Your task to perform on an android device: Open Android settings Image 0: 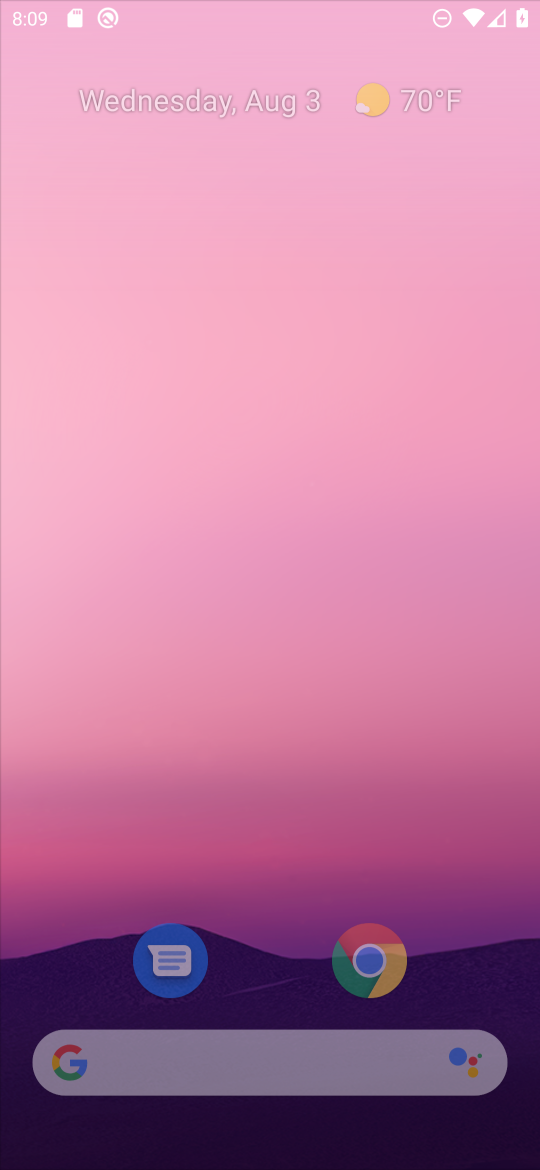
Step 0: press home button
Your task to perform on an android device: Open Android settings Image 1: 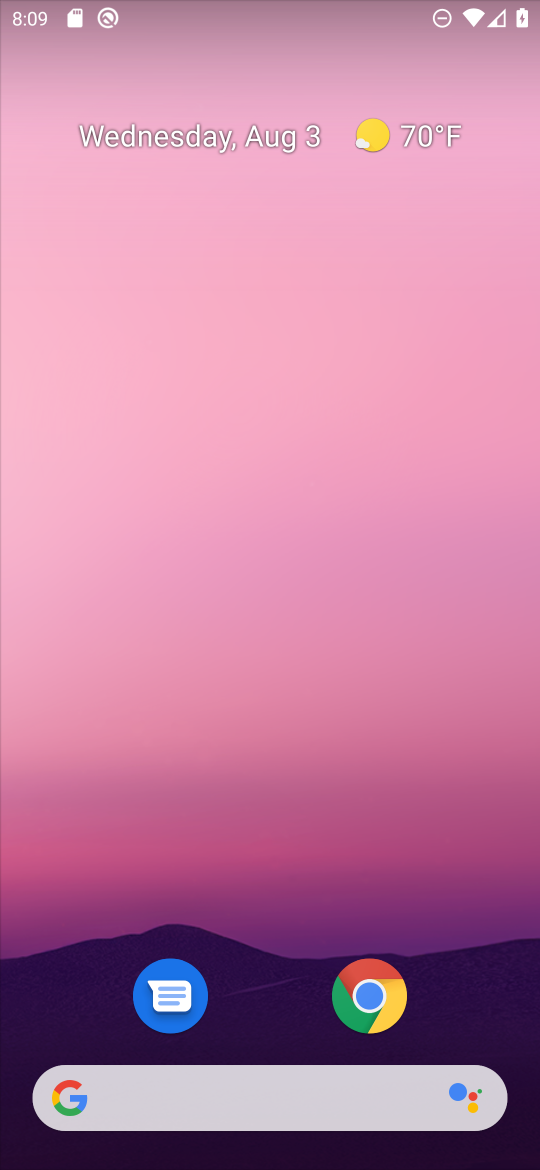
Step 1: click (393, 135)
Your task to perform on an android device: Open Android settings Image 2: 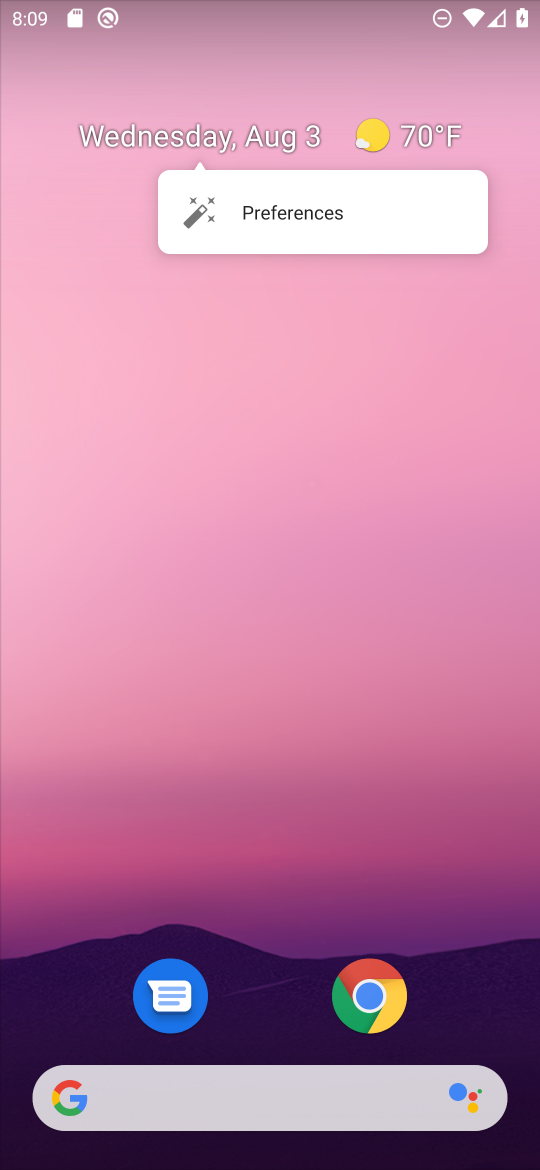
Step 2: click (393, 132)
Your task to perform on an android device: Open Android settings Image 3: 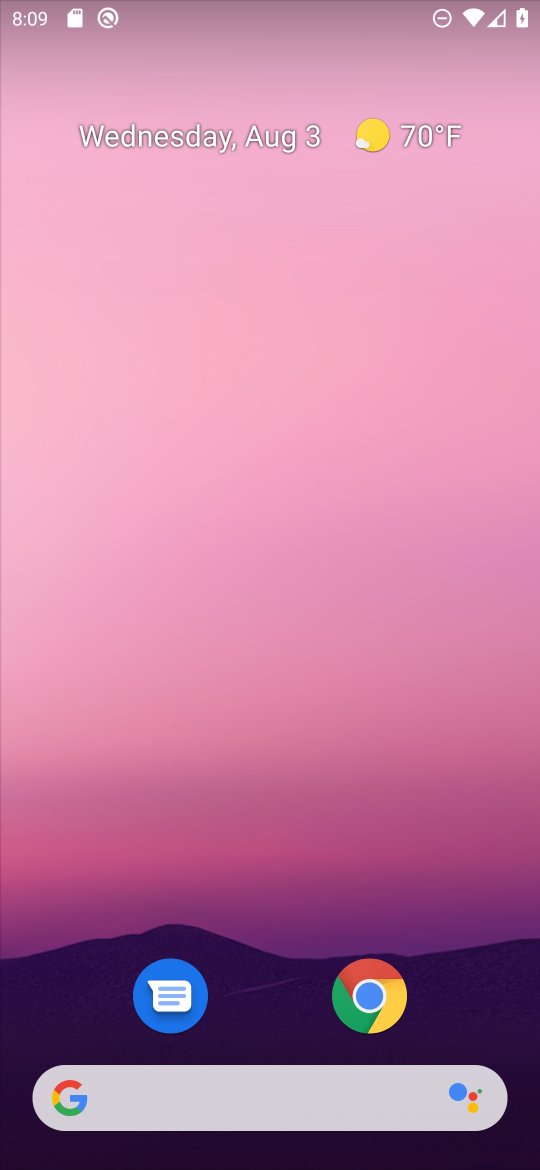
Step 3: click (393, 132)
Your task to perform on an android device: Open Android settings Image 4: 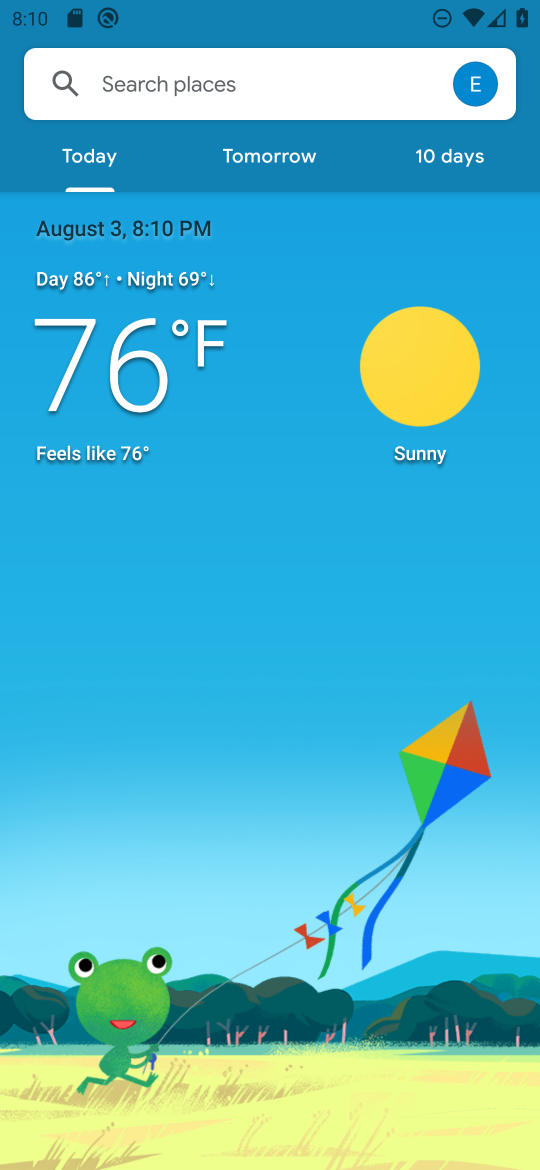
Step 4: press home button
Your task to perform on an android device: Open Android settings Image 5: 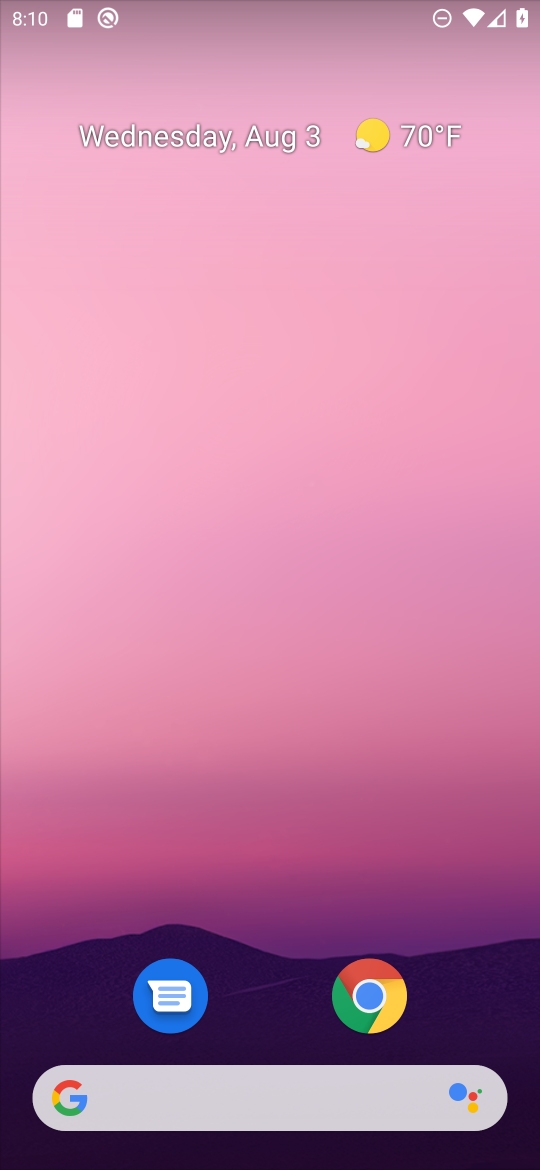
Step 5: drag from (297, 962) to (301, 0)
Your task to perform on an android device: Open Android settings Image 6: 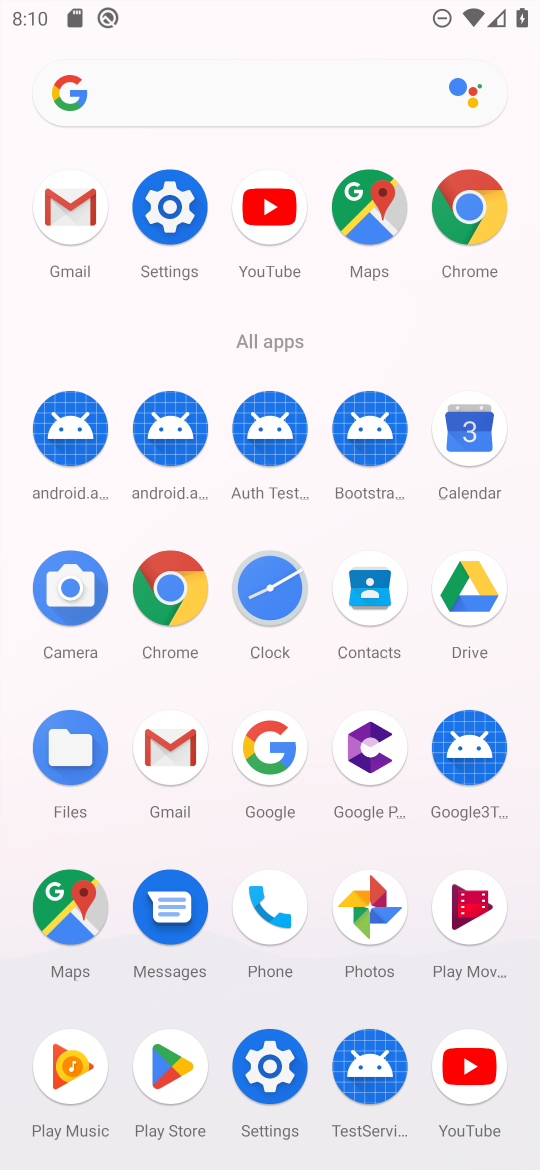
Step 6: click (177, 208)
Your task to perform on an android device: Open Android settings Image 7: 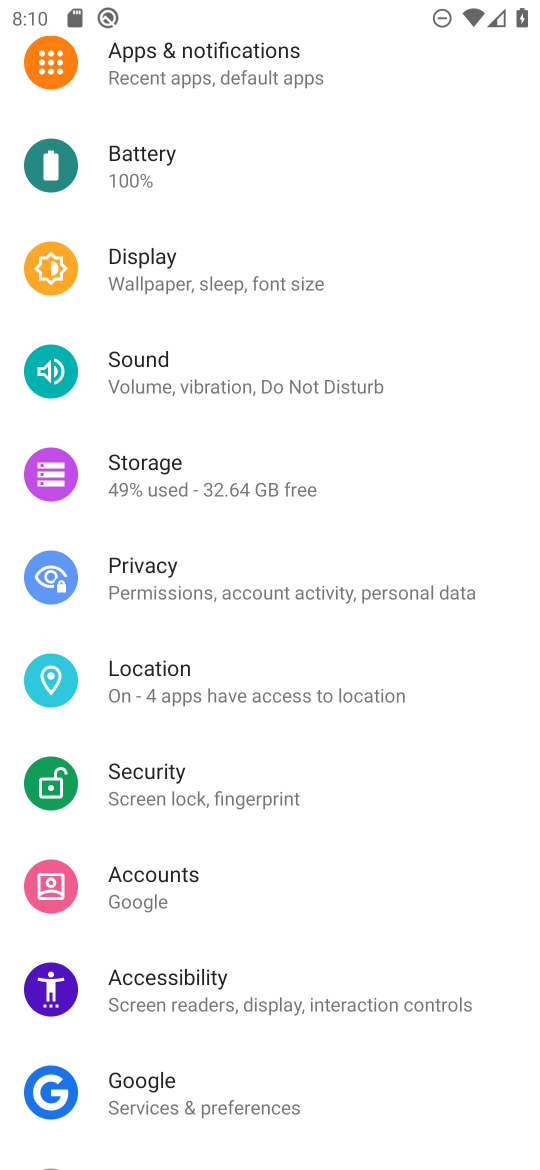
Step 7: drag from (358, 848) to (347, 656)
Your task to perform on an android device: Open Android settings Image 8: 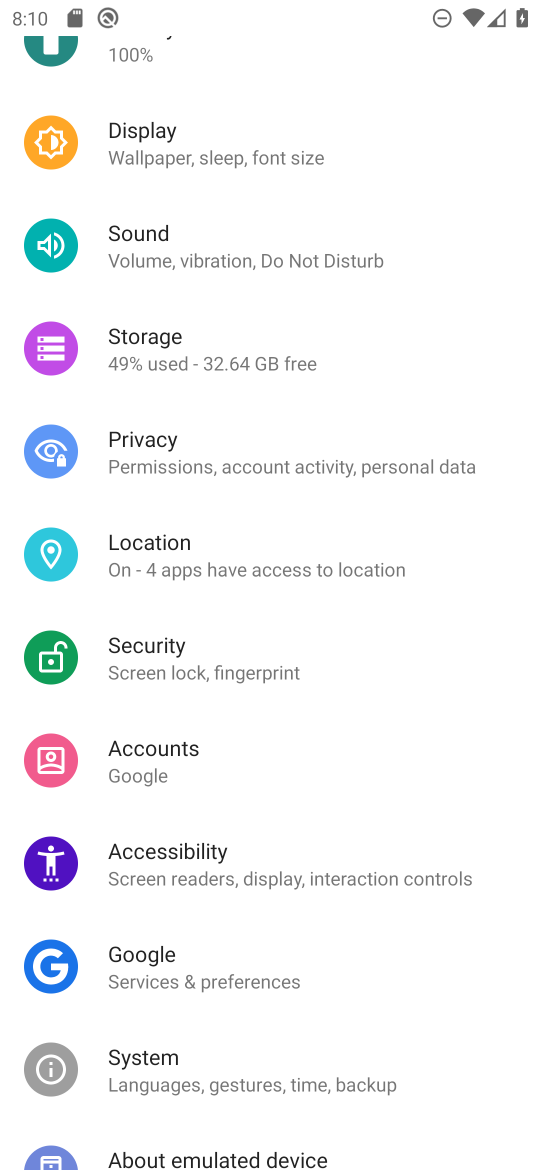
Step 8: drag from (405, 914) to (426, 683)
Your task to perform on an android device: Open Android settings Image 9: 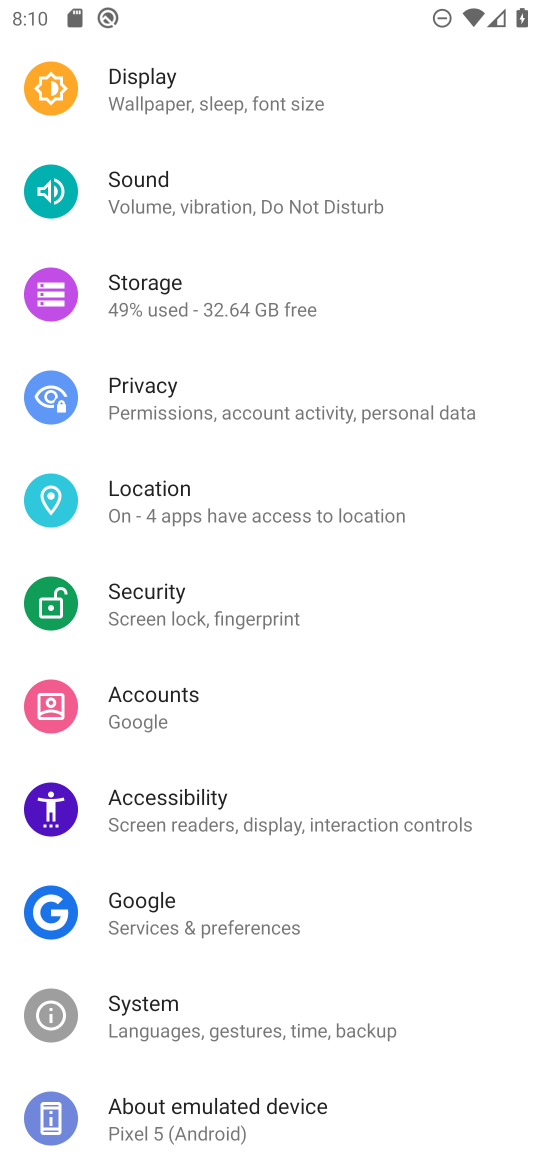
Step 9: click (283, 1122)
Your task to perform on an android device: Open Android settings Image 10: 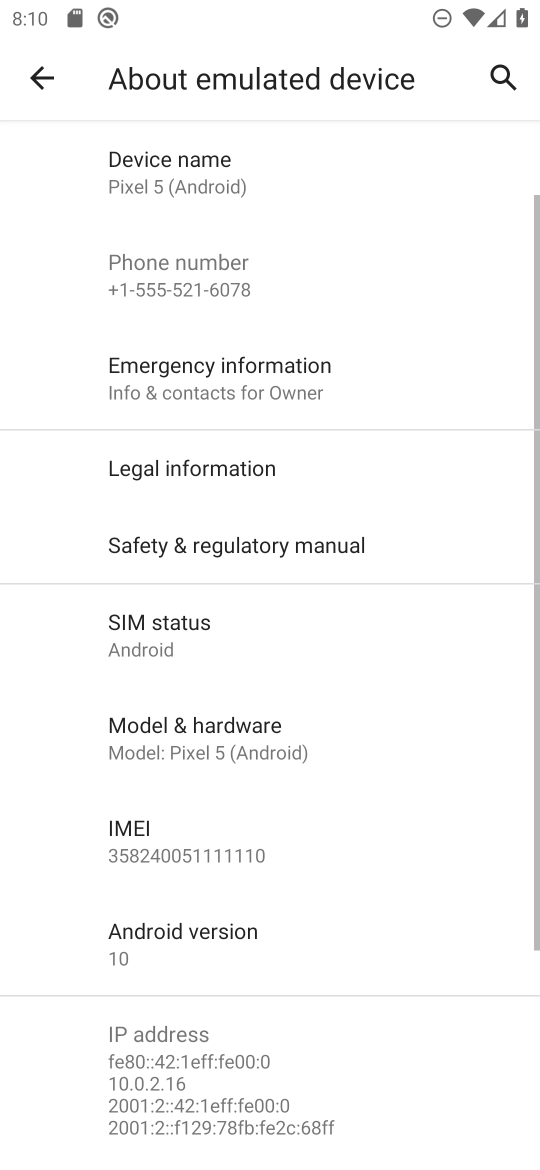
Step 10: task complete